Your task to perform on an android device: Add razer blade to the cart on newegg.com Image 0: 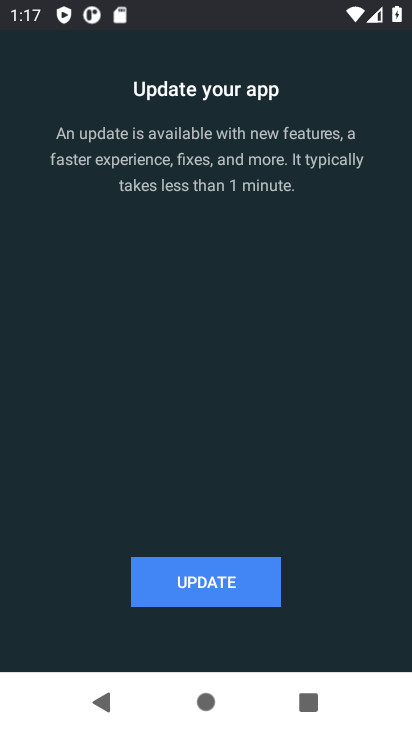
Step 0: press home button
Your task to perform on an android device: Add razer blade to the cart on newegg.com Image 1: 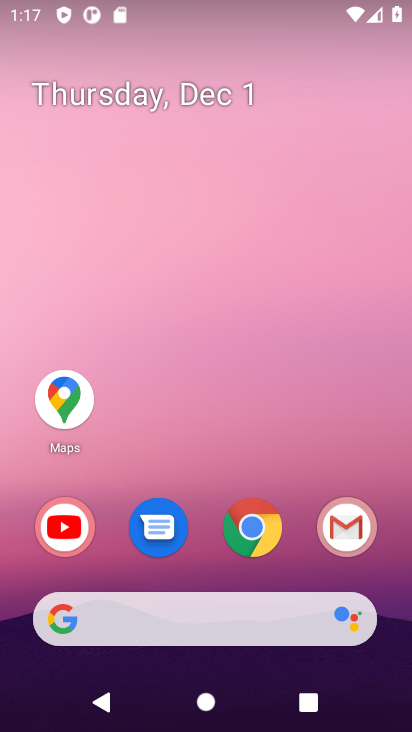
Step 1: click (251, 530)
Your task to perform on an android device: Add razer blade to the cart on newegg.com Image 2: 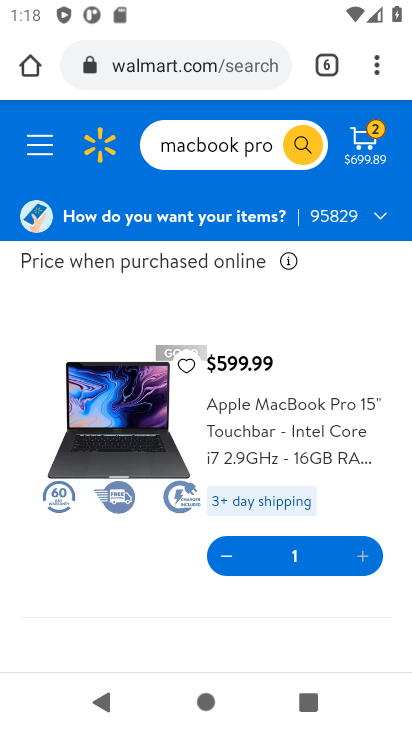
Step 2: click (181, 71)
Your task to perform on an android device: Add razer blade to the cart on newegg.com Image 3: 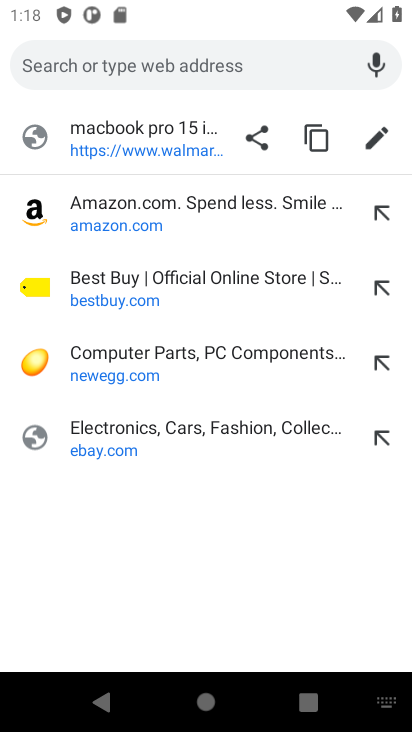
Step 3: click (105, 369)
Your task to perform on an android device: Add razer blade to the cart on newegg.com Image 4: 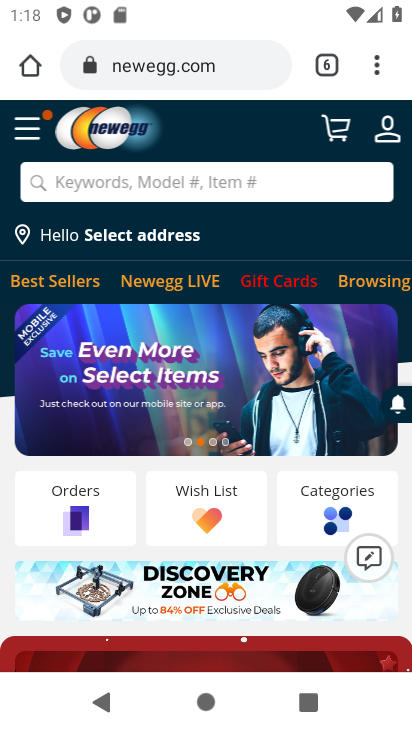
Step 4: click (139, 190)
Your task to perform on an android device: Add razer blade to the cart on newegg.com Image 5: 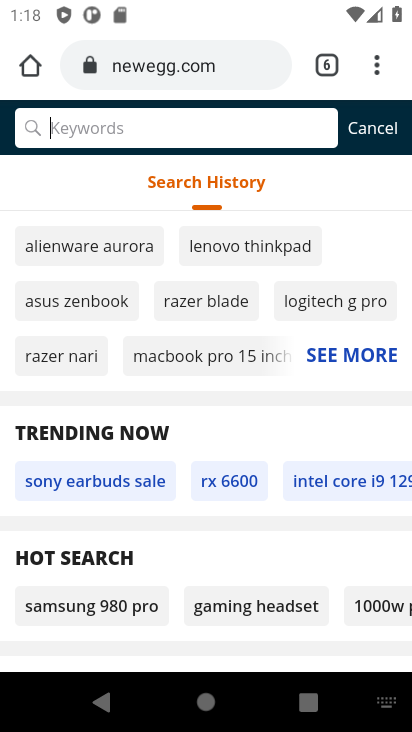
Step 5: type "razer blade"
Your task to perform on an android device: Add razer blade to the cart on newegg.com Image 6: 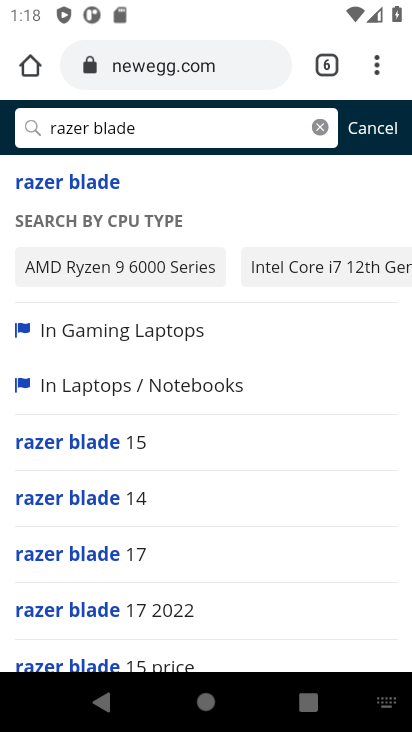
Step 6: click (66, 186)
Your task to perform on an android device: Add razer blade to the cart on newegg.com Image 7: 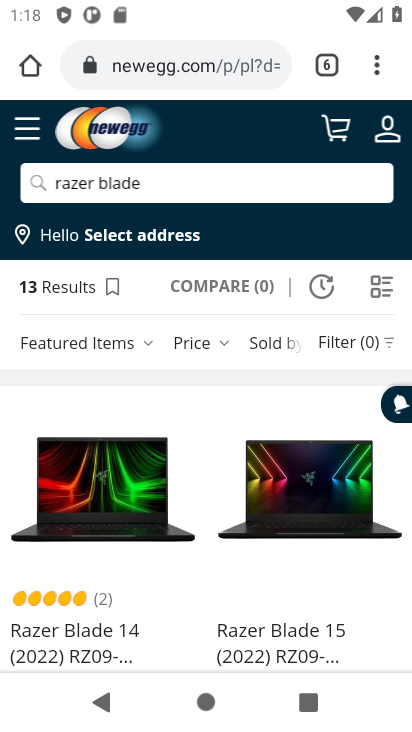
Step 7: drag from (147, 630) to (160, 547)
Your task to perform on an android device: Add razer blade to the cart on newegg.com Image 8: 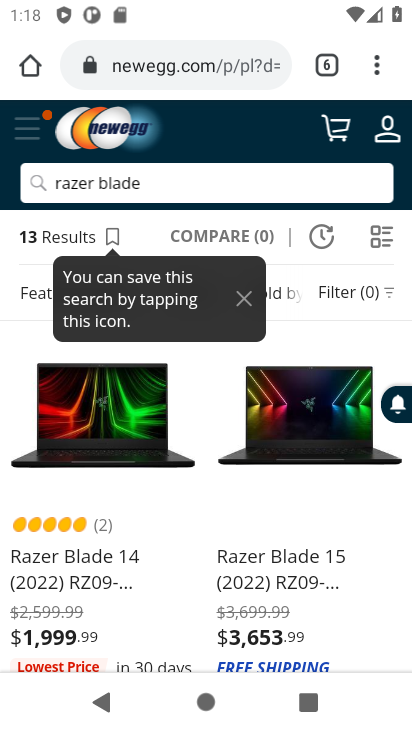
Step 8: click (85, 469)
Your task to perform on an android device: Add razer blade to the cart on newegg.com Image 9: 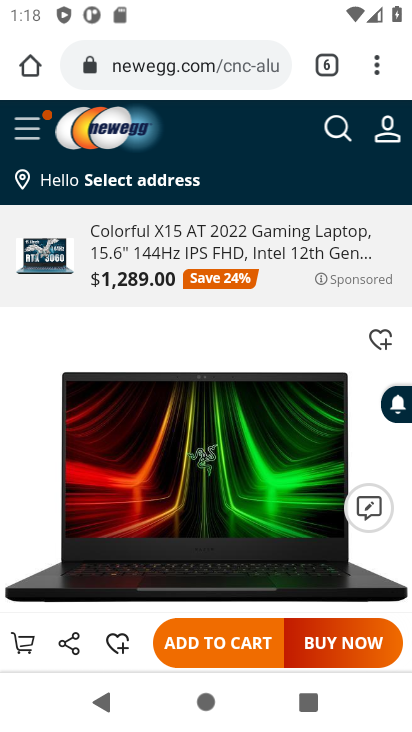
Step 9: click (202, 634)
Your task to perform on an android device: Add razer blade to the cart on newegg.com Image 10: 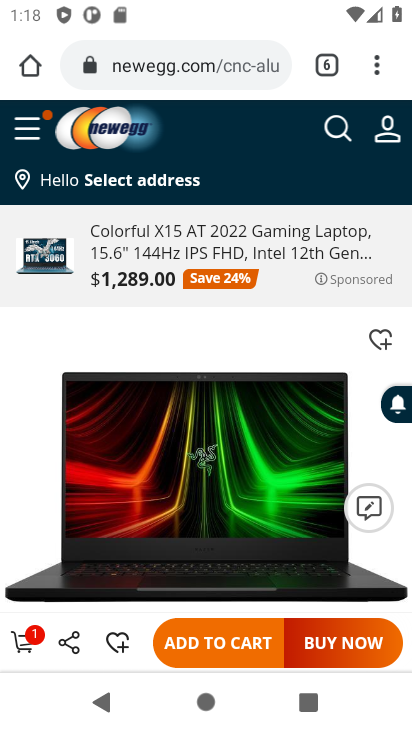
Step 10: click (222, 646)
Your task to perform on an android device: Add razer blade to the cart on newegg.com Image 11: 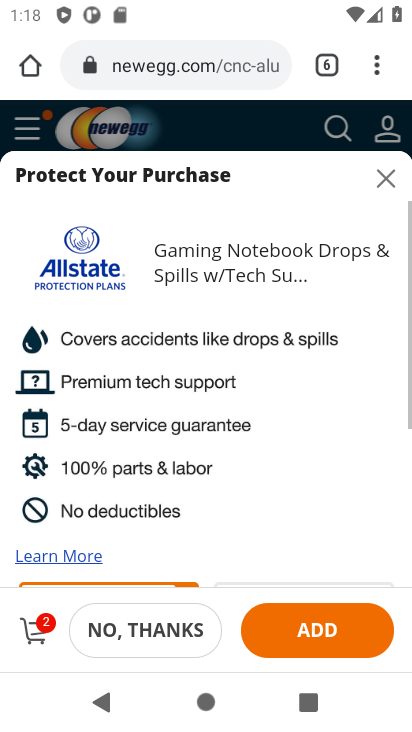
Step 11: task complete